Your task to perform on an android device: Open the stopwatch Image 0: 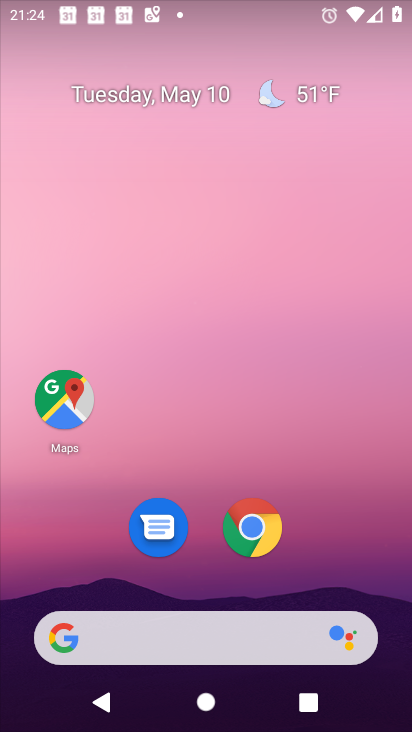
Step 0: drag from (223, 597) to (207, 18)
Your task to perform on an android device: Open the stopwatch Image 1: 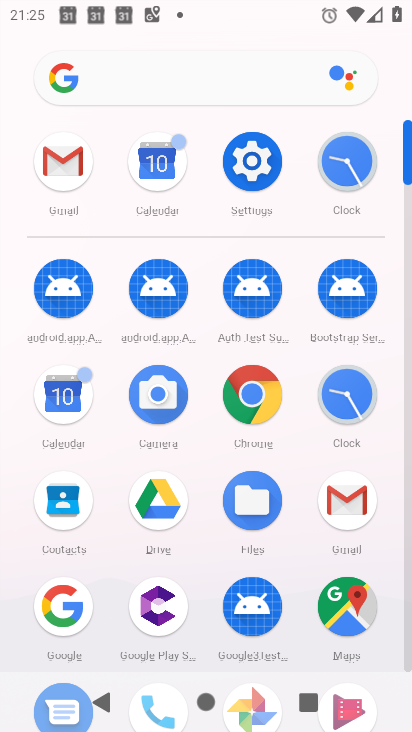
Step 1: click (344, 400)
Your task to perform on an android device: Open the stopwatch Image 2: 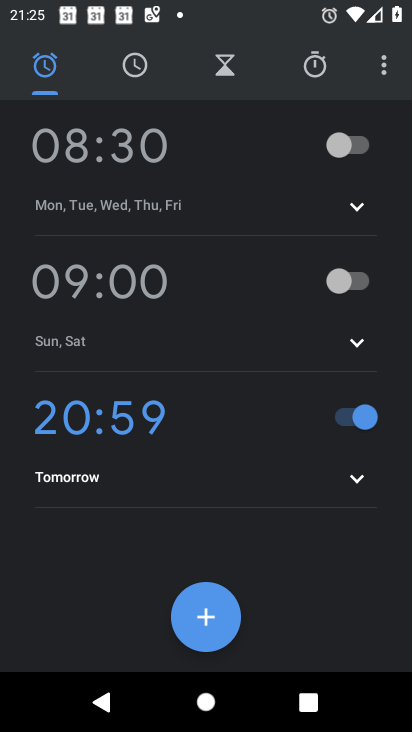
Step 2: click (305, 67)
Your task to perform on an android device: Open the stopwatch Image 3: 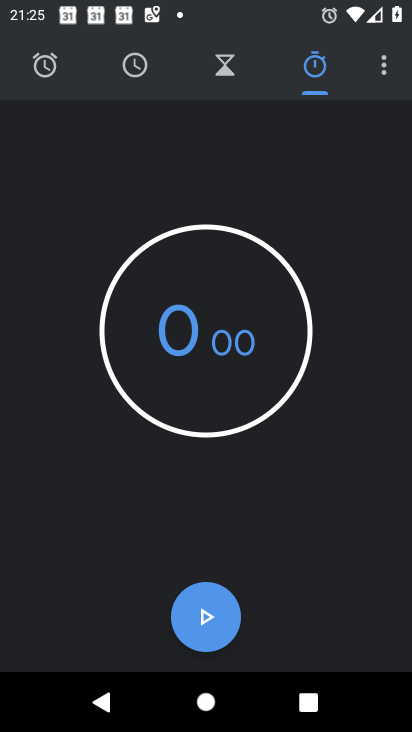
Step 3: click (224, 615)
Your task to perform on an android device: Open the stopwatch Image 4: 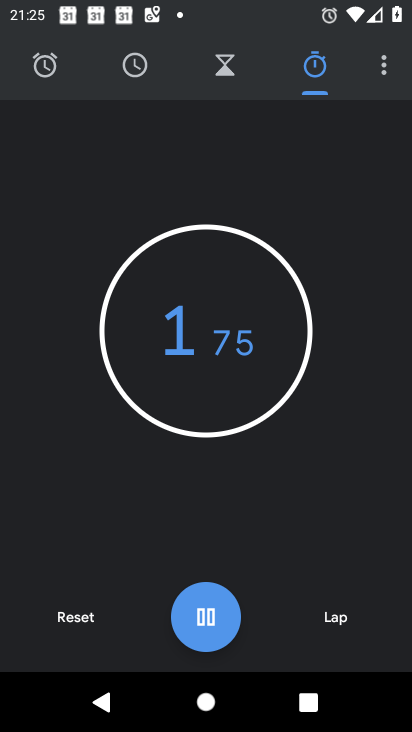
Step 4: click (223, 615)
Your task to perform on an android device: Open the stopwatch Image 5: 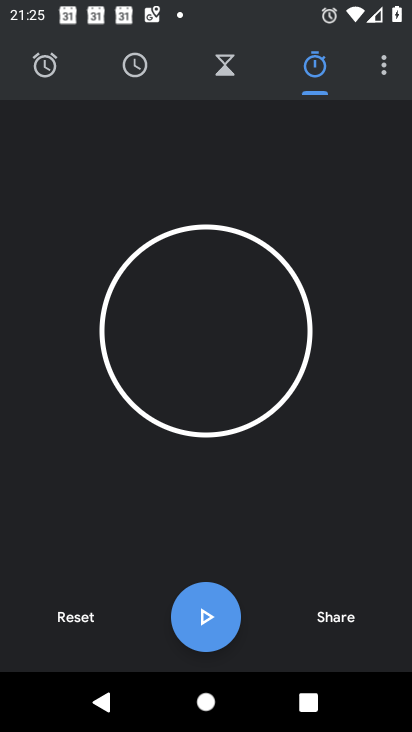
Step 5: task complete